Your task to perform on an android device: open chrome privacy settings Image 0: 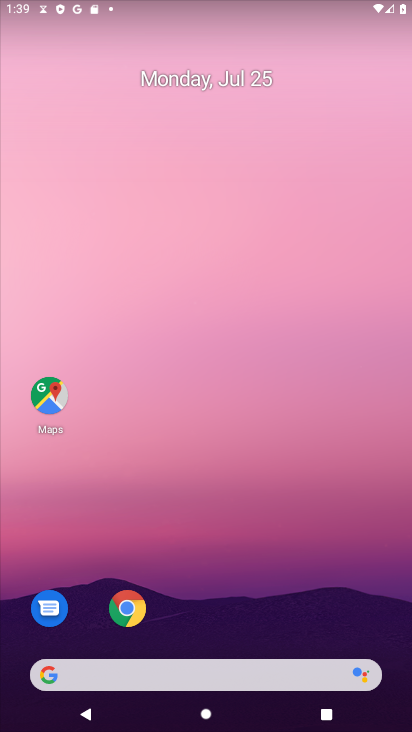
Step 0: click (127, 610)
Your task to perform on an android device: open chrome privacy settings Image 1: 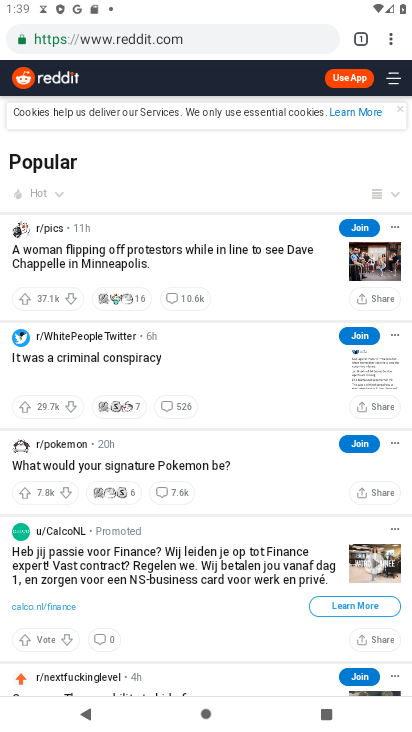
Step 1: click (392, 37)
Your task to perform on an android device: open chrome privacy settings Image 2: 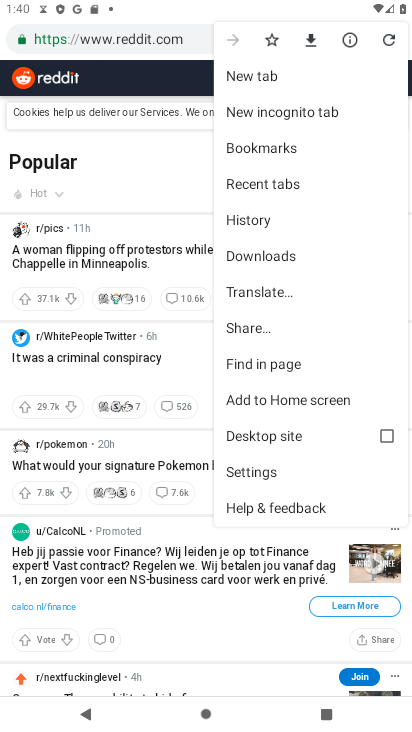
Step 2: click (263, 468)
Your task to perform on an android device: open chrome privacy settings Image 3: 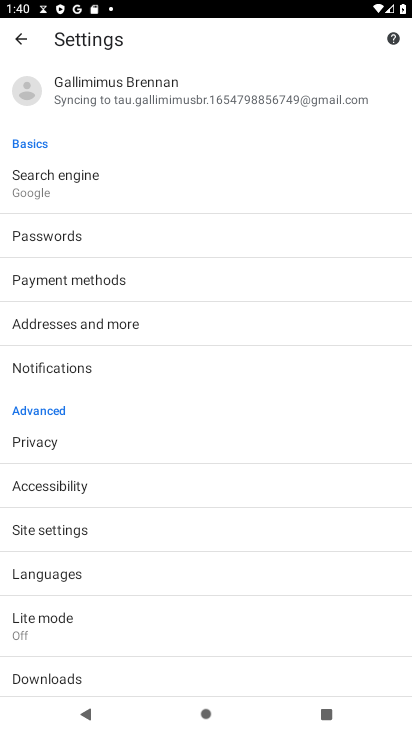
Step 3: click (55, 438)
Your task to perform on an android device: open chrome privacy settings Image 4: 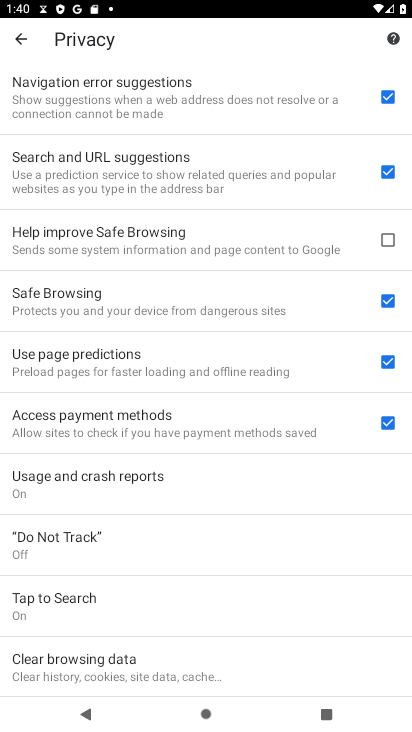
Step 4: task complete